Your task to perform on an android device: change keyboard looks Image 0: 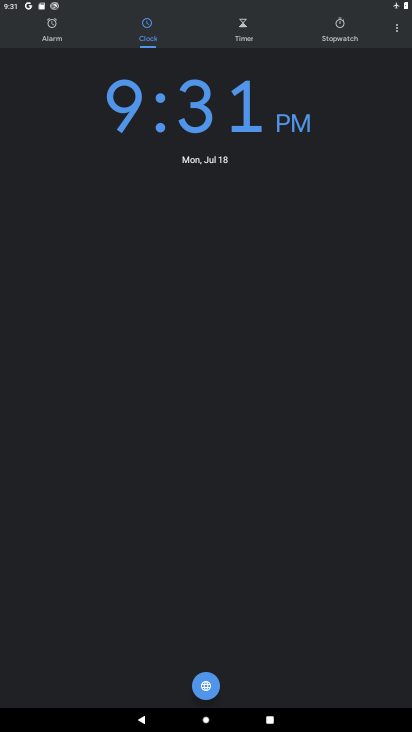
Step 0: press home button
Your task to perform on an android device: change keyboard looks Image 1: 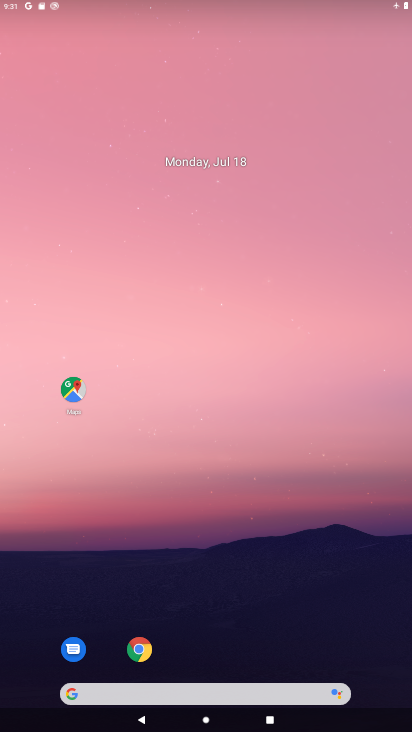
Step 1: click (305, 400)
Your task to perform on an android device: change keyboard looks Image 2: 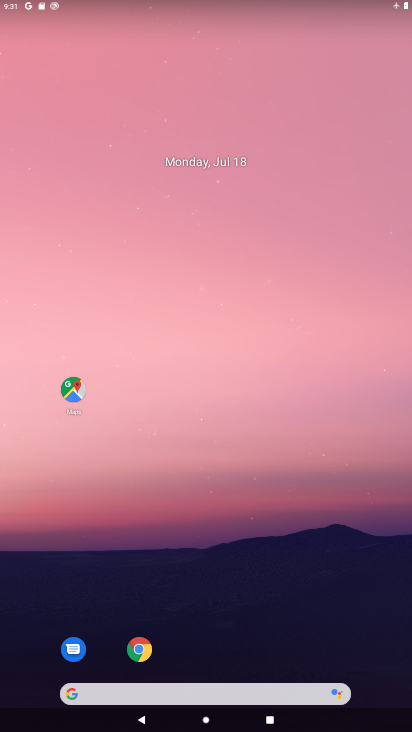
Step 2: drag from (225, 682) to (266, 391)
Your task to perform on an android device: change keyboard looks Image 3: 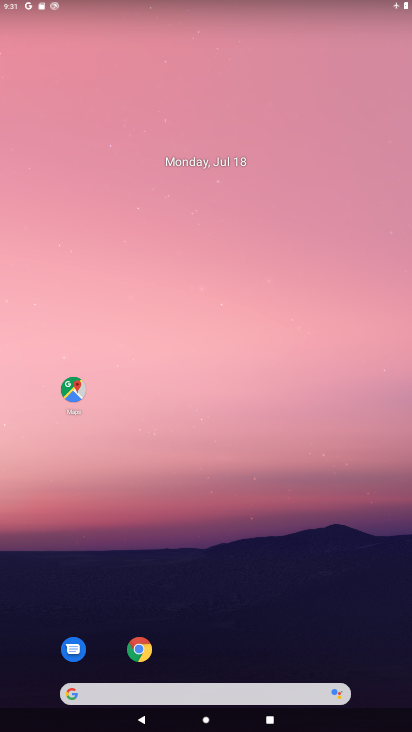
Step 3: drag from (171, 687) to (234, 305)
Your task to perform on an android device: change keyboard looks Image 4: 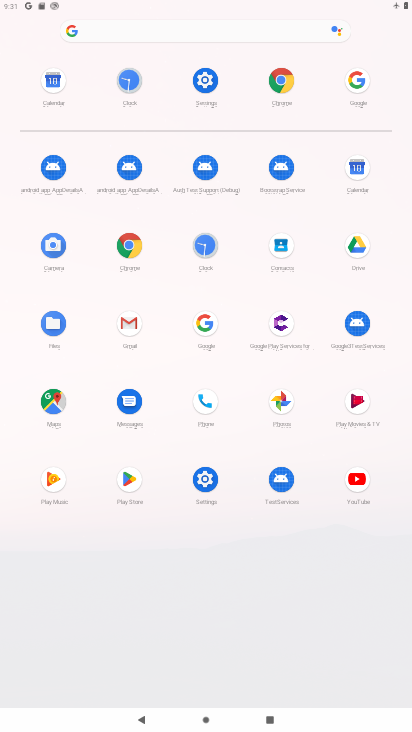
Step 4: click (206, 77)
Your task to perform on an android device: change keyboard looks Image 5: 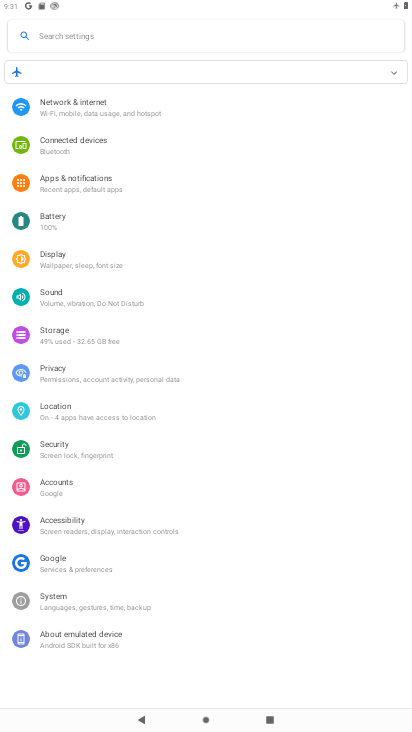
Step 5: click (65, 607)
Your task to perform on an android device: change keyboard looks Image 6: 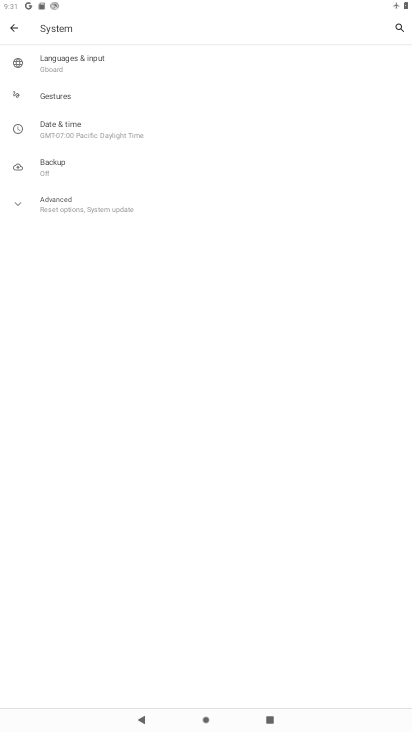
Step 6: click (54, 56)
Your task to perform on an android device: change keyboard looks Image 7: 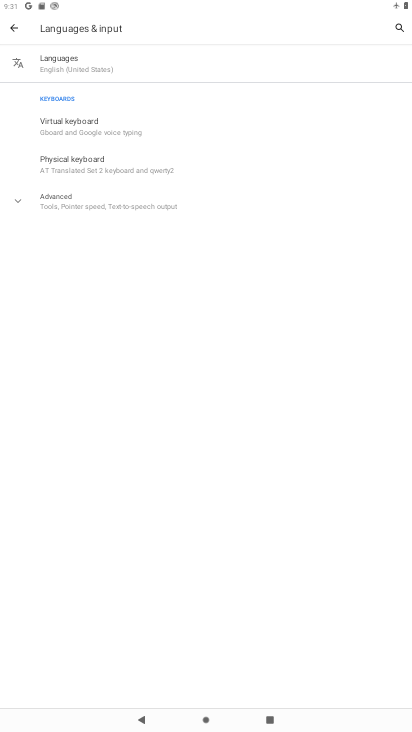
Step 7: click (58, 199)
Your task to perform on an android device: change keyboard looks Image 8: 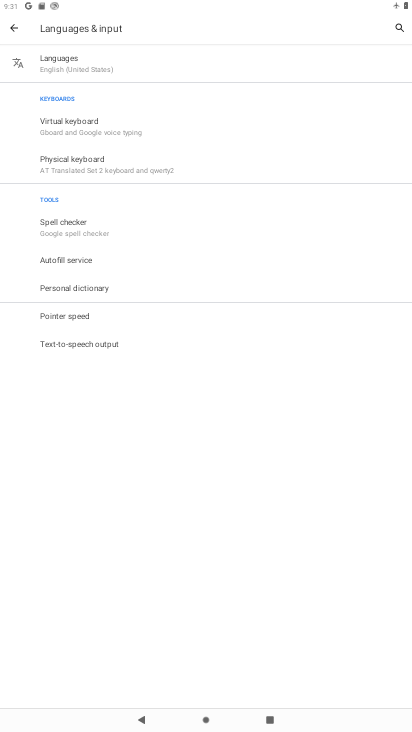
Step 8: click (47, 123)
Your task to perform on an android device: change keyboard looks Image 9: 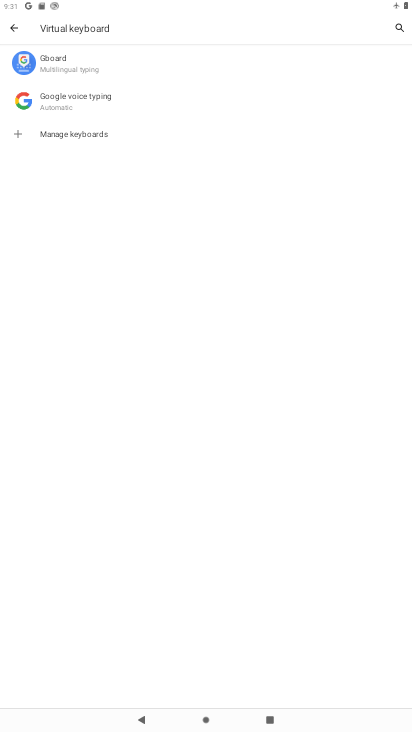
Step 9: click (53, 60)
Your task to perform on an android device: change keyboard looks Image 10: 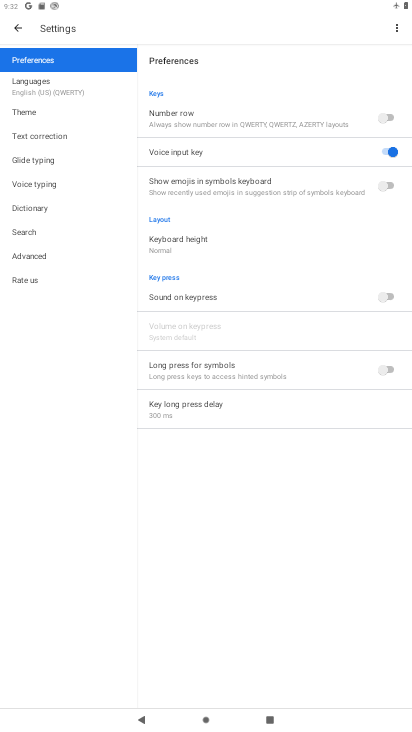
Step 10: click (34, 107)
Your task to perform on an android device: change keyboard looks Image 11: 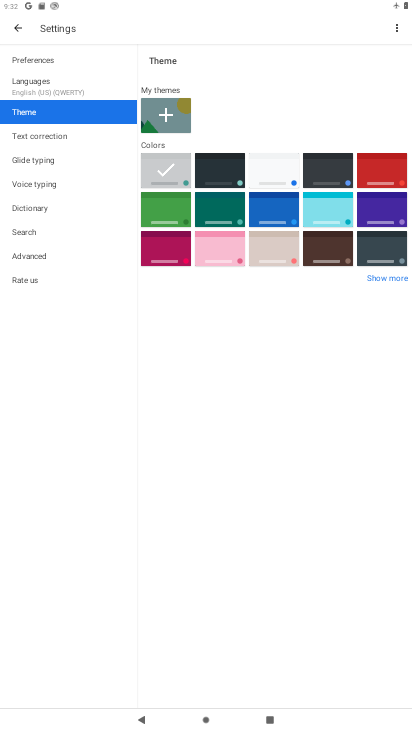
Step 11: click (321, 250)
Your task to perform on an android device: change keyboard looks Image 12: 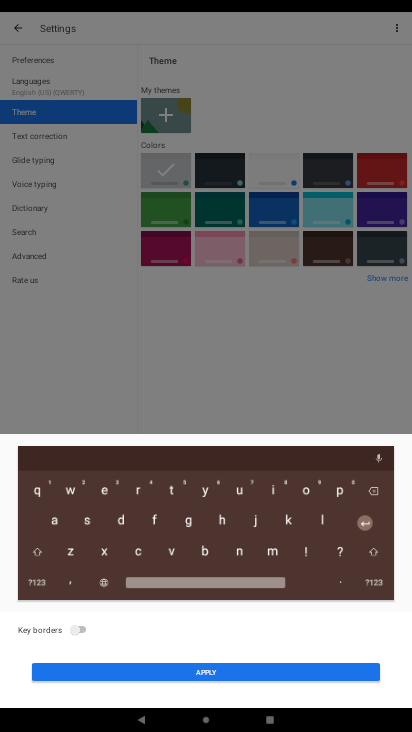
Step 12: click (193, 671)
Your task to perform on an android device: change keyboard looks Image 13: 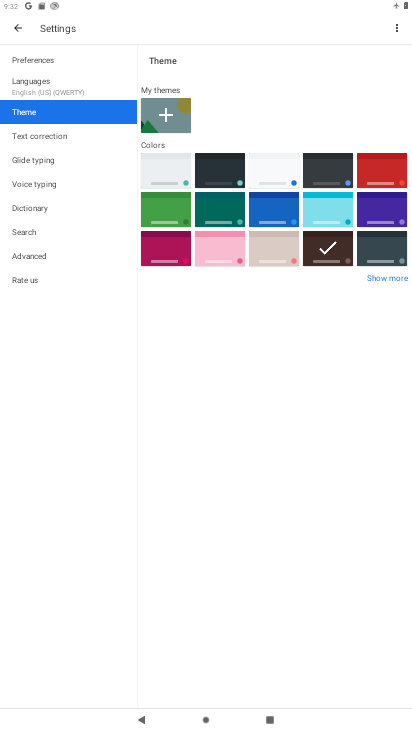
Step 13: task complete